Your task to perform on an android device: Go to Reddit.com Image 0: 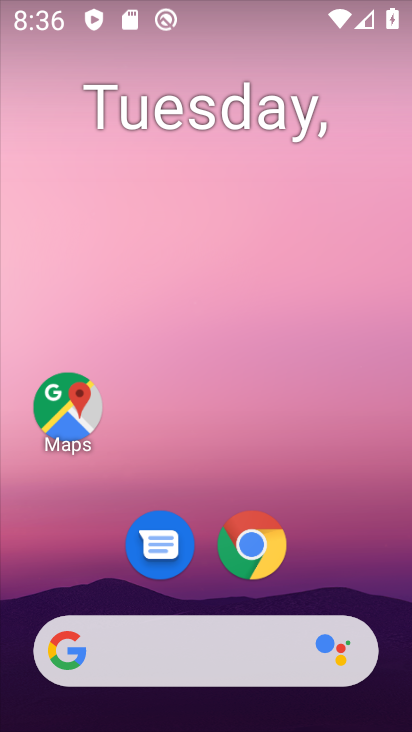
Step 0: click (255, 550)
Your task to perform on an android device: Go to Reddit.com Image 1: 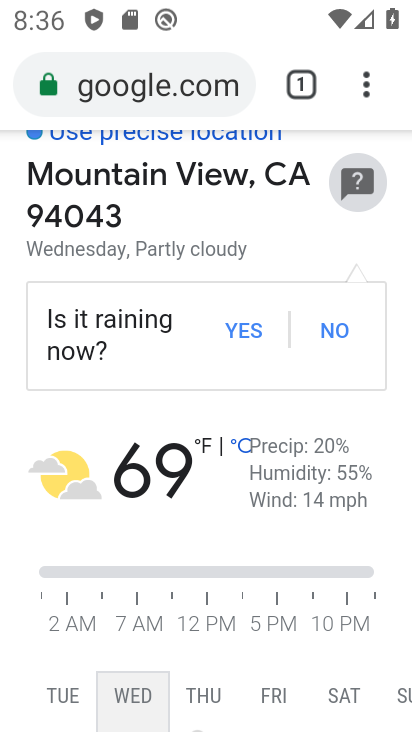
Step 1: click (150, 99)
Your task to perform on an android device: Go to Reddit.com Image 2: 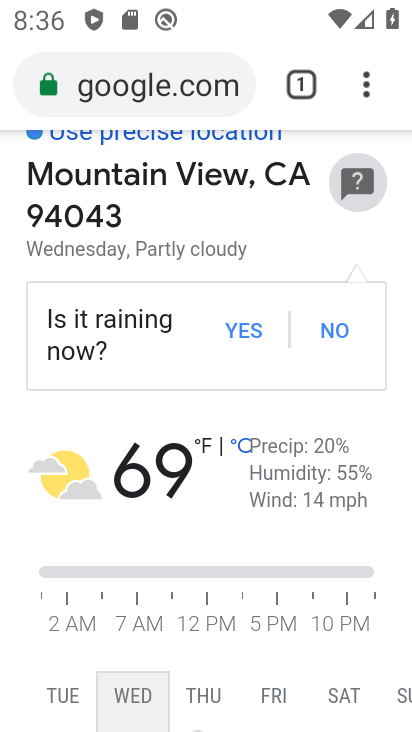
Step 2: click (150, 99)
Your task to perform on an android device: Go to Reddit.com Image 3: 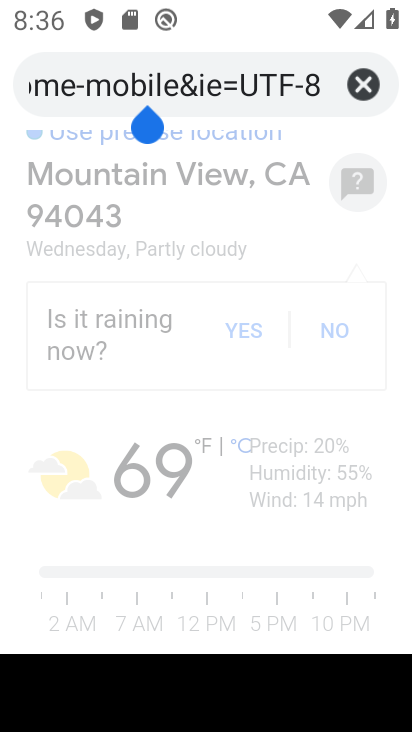
Step 3: click (296, 91)
Your task to perform on an android device: Go to Reddit.com Image 4: 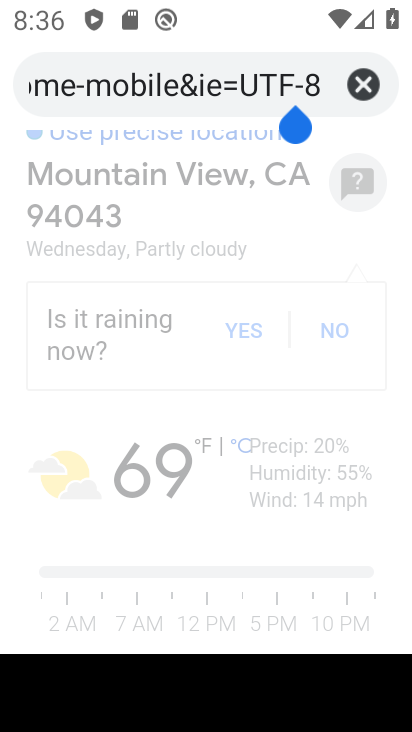
Step 4: click (360, 85)
Your task to perform on an android device: Go to Reddit.com Image 5: 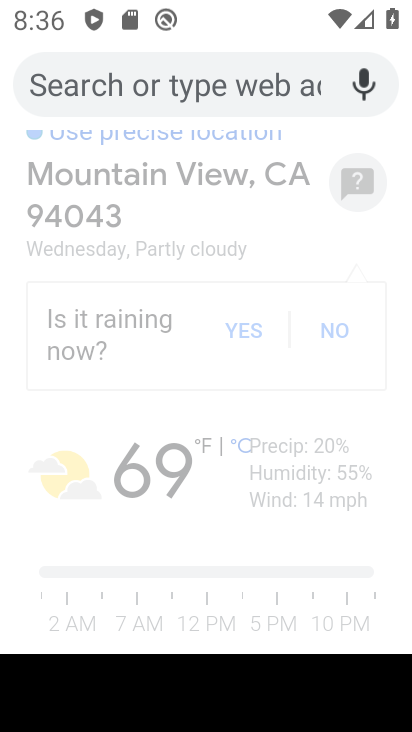
Step 5: type "Reddit.com"
Your task to perform on an android device: Go to Reddit.com Image 6: 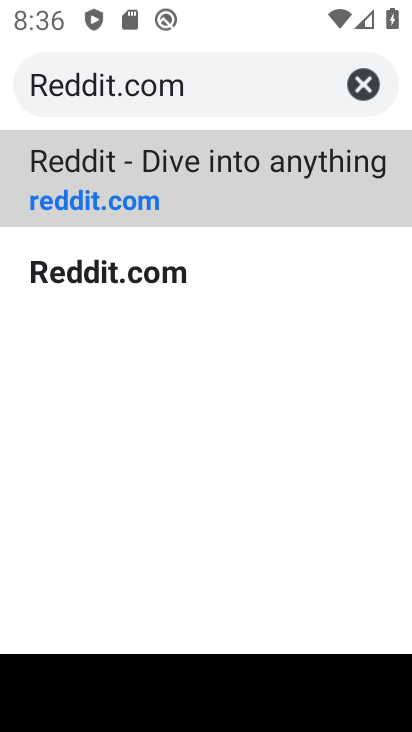
Step 6: click (140, 192)
Your task to perform on an android device: Go to Reddit.com Image 7: 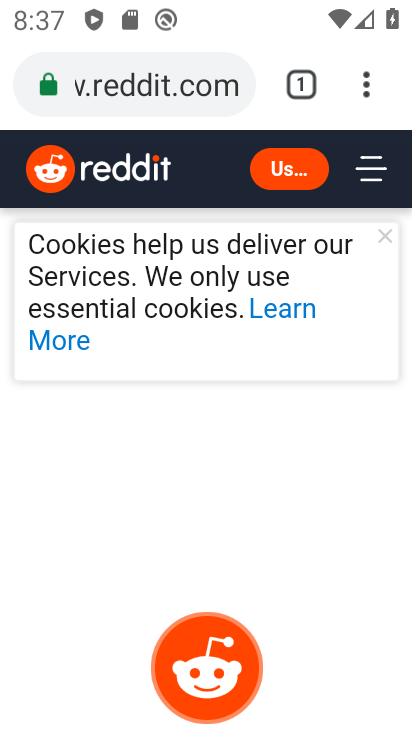
Step 7: task complete